Your task to perform on an android device: Open settings on Google Maps Image 0: 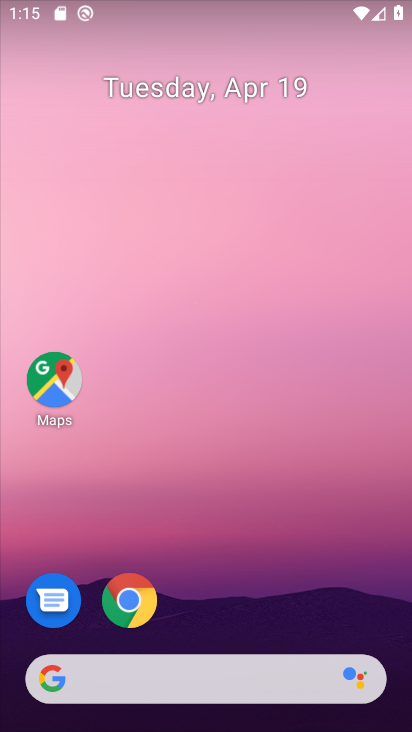
Step 0: drag from (352, 472) to (274, 37)
Your task to perform on an android device: Open settings on Google Maps Image 1: 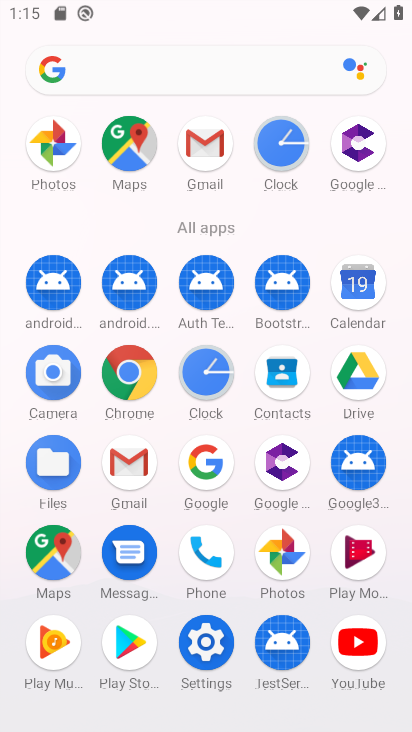
Step 1: click (121, 137)
Your task to perform on an android device: Open settings on Google Maps Image 2: 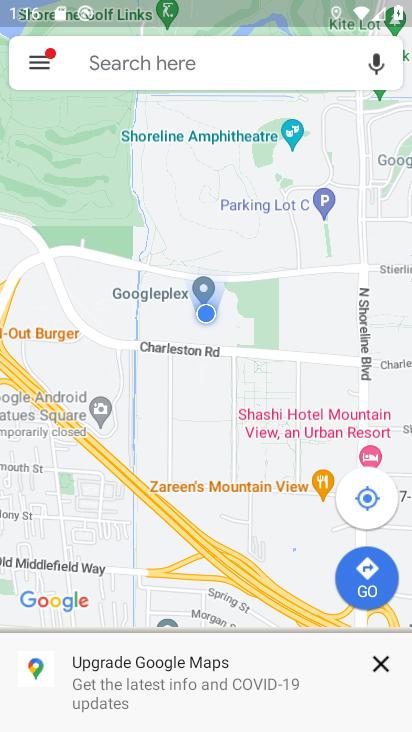
Step 2: click (45, 56)
Your task to perform on an android device: Open settings on Google Maps Image 3: 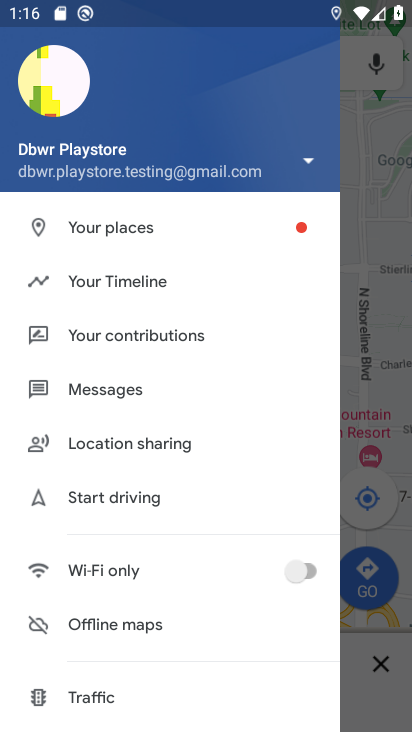
Step 3: drag from (185, 640) to (224, 213)
Your task to perform on an android device: Open settings on Google Maps Image 4: 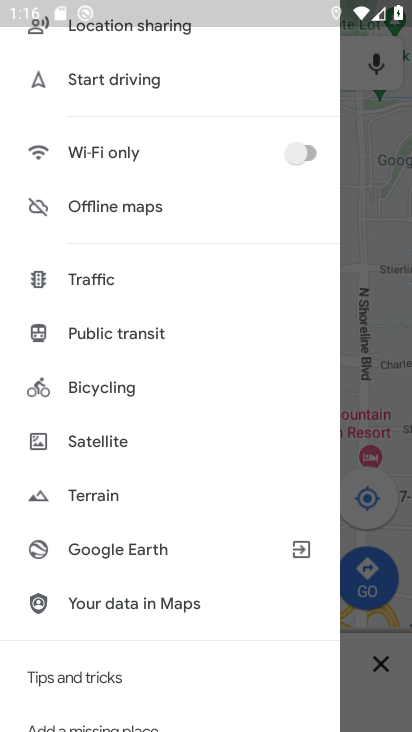
Step 4: drag from (154, 681) to (206, 220)
Your task to perform on an android device: Open settings on Google Maps Image 5: 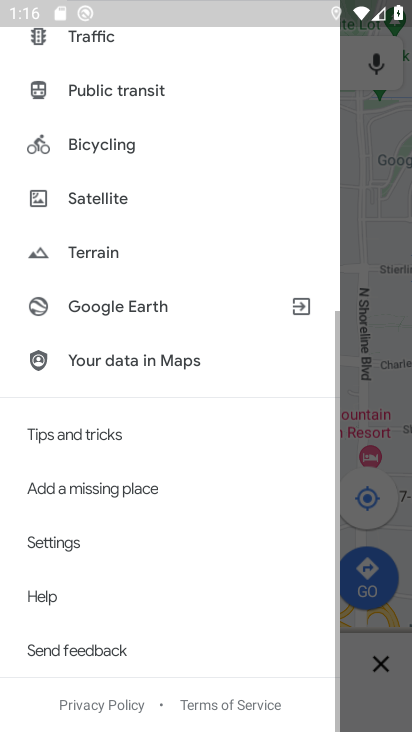
Step 5: click (88, 544)
Your task to perform on an android device: Open settings on Google Maps Image 6: 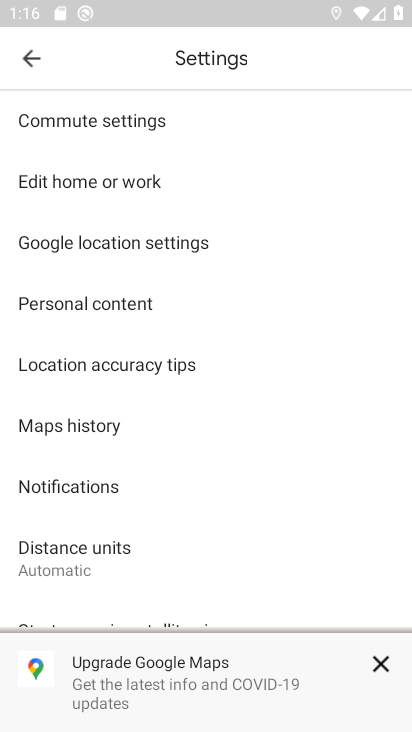
Step 6: task complete